Your task to perform on an android device: remove spam from my inbox in the gmail app Image 0: 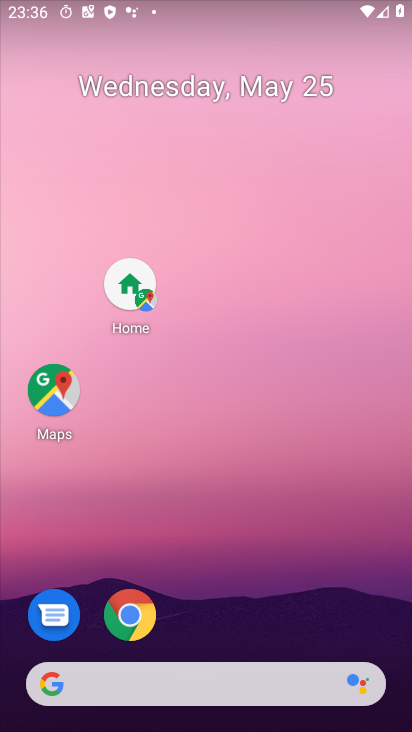
Step 0: press home button
Your task to perform on an android device: remove spam from my inbox in the gmail app Image 1: 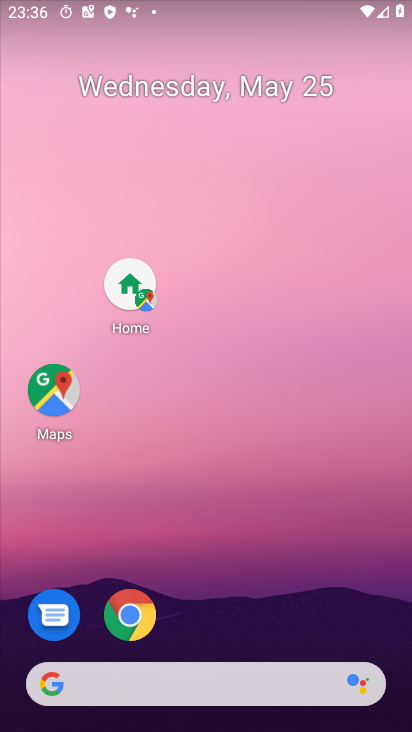
Step 1: drag from (217, 597) to (241, 123)
Your task to perform on an android device: remove spam from my inbox in the gmail app Image 2: 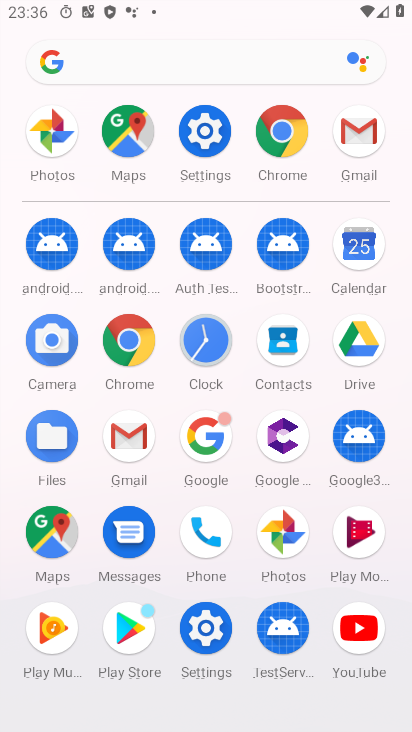
Step 2: click (356, 149)
Your task to perform on an android device: remove spam from my inbox in the gmail app Image 3: 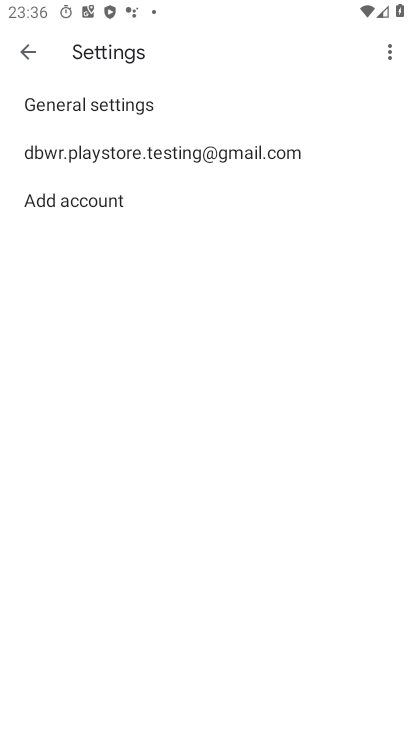
Step 3: click (27, 49)
Your task to perform on an android device: remove spam from my inbox in the gmail app Image 4: 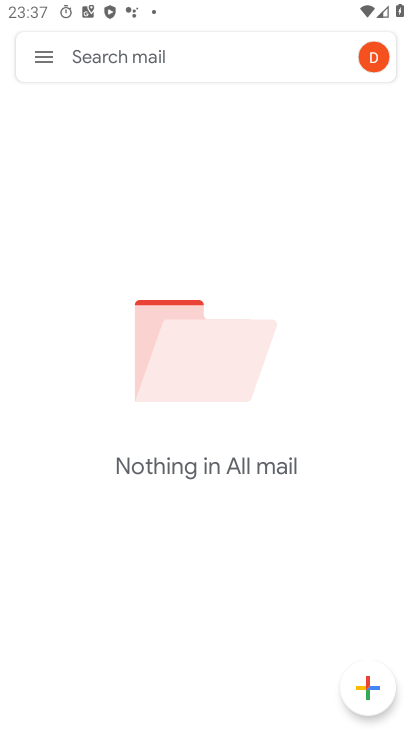
Step 4: click (44, 65)
Your task to perform on an android device: remove spam from my inbox in the gmail app Image 5: 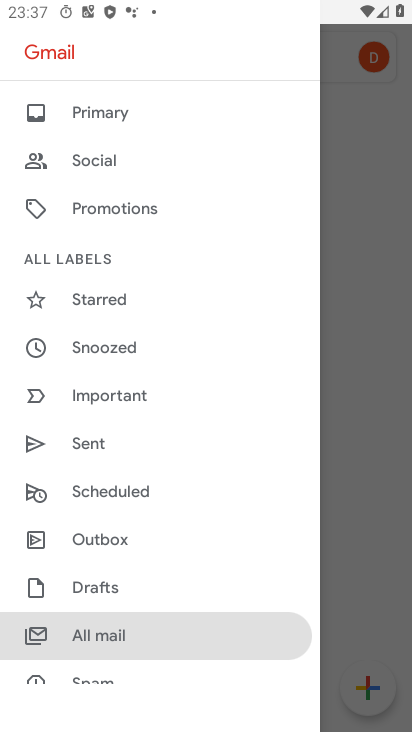
Step 5: drag from (202, 525) to (246, 144)
Your task to perform on an android device: remove spam from my inbox in the gmail app Image 6: 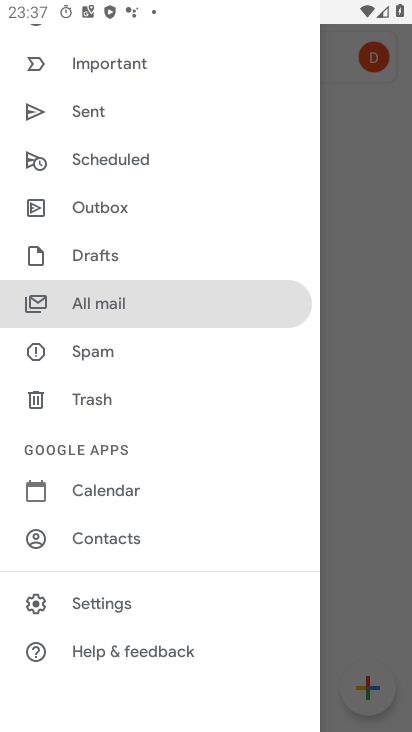
Step 6: click (95, 353)
Your task to perform on an android device: remove spam from my inbox in the gmail app Image 7: 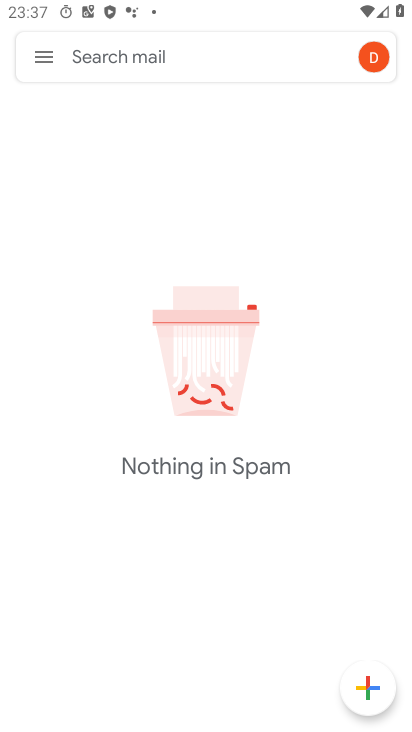
Step 7: task complete